Your task to perform on an android device: create a new album in the google photos Image 0: 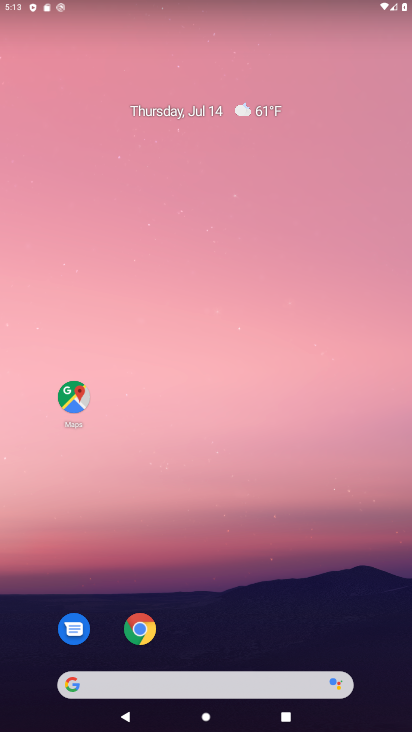
Step 0: drag from (351, 609) to (324, 15)
Your task to perform on an android device: create a new album in the google photos Image 1: 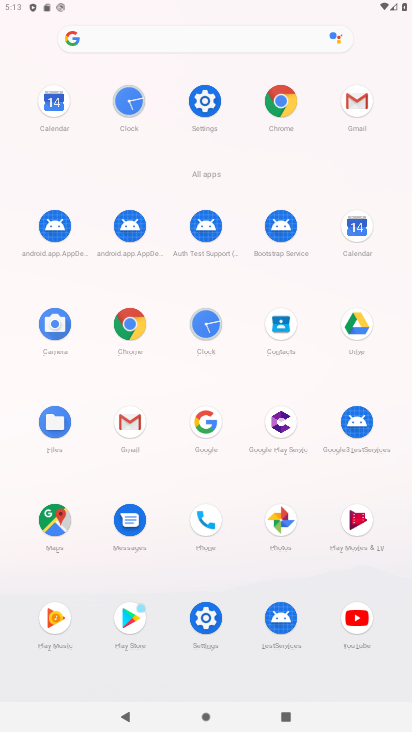
Step 1: click (275, 518)
Your task to perform on an android device: create a new album in the google photos Image 2: 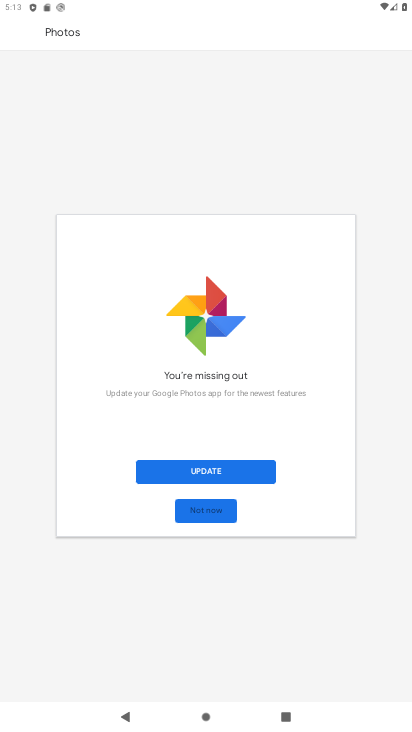
Step 2: click (257, 475)
Your task to perform on an android device: create a new album in the google photos Image 3: 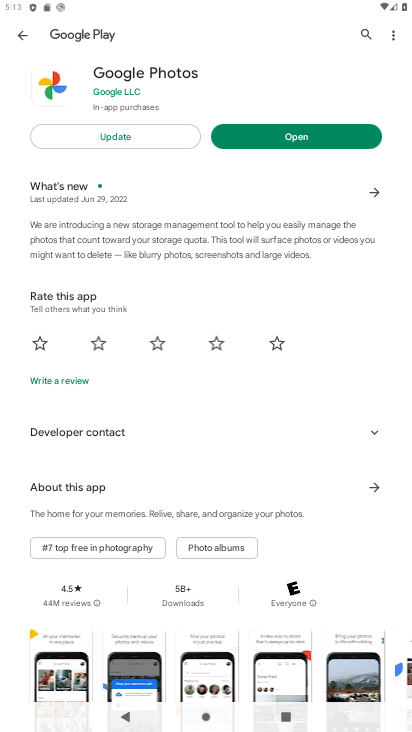
Step 3: click (163, 133)
Your task to perform on an android device: create a new album in the google photos Image 4: 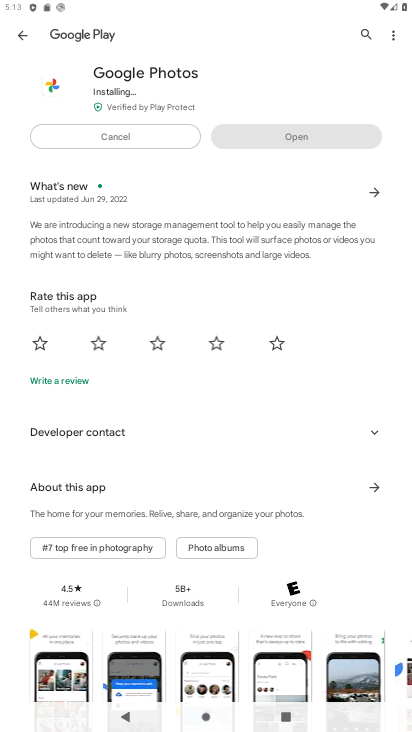
Step 4: click (267, 127)
Your task to perform on an android device: create a new album in the google photos Image 5: 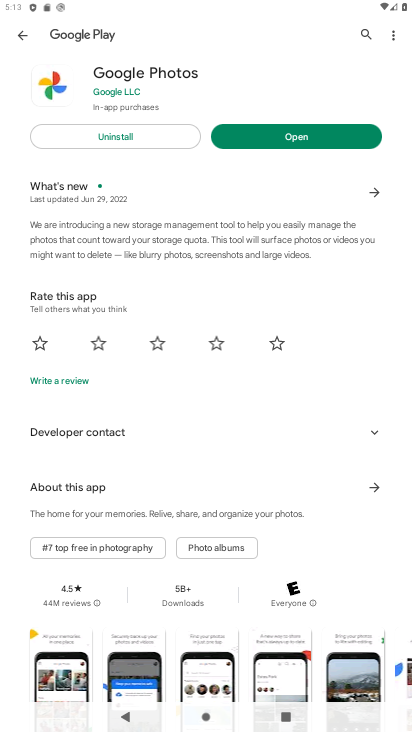
Step 5: click (267, 127)
Your task to perform on an android device: create a new album in the google photos Image 6: 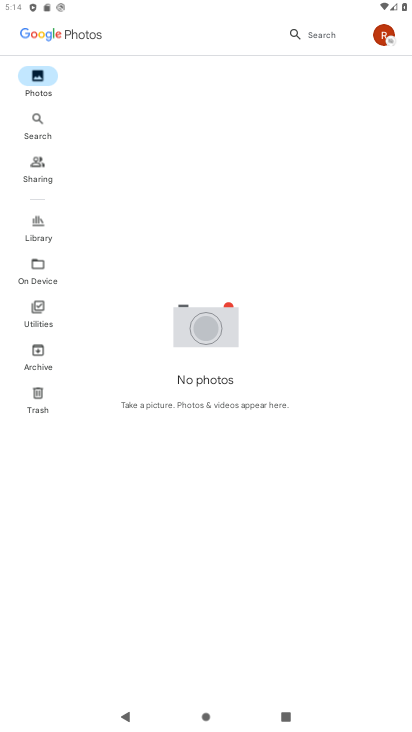
Step 6: click (102, 327)
Your task to perform on an android device: create a new album in the google photos Image 7: 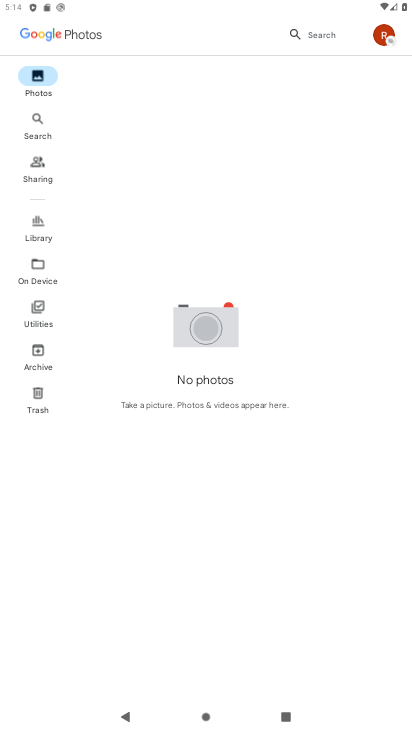
Step 7: task complete